Your task to perform on an android device: Go to Android settings Image 0: 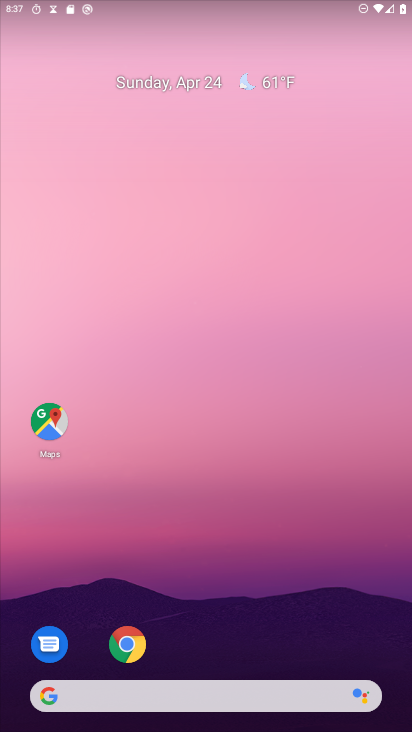
Step 0: drag from (249, 535) to (244, 92)
Your task to perform on an android device: Go to Android settings Image 1: 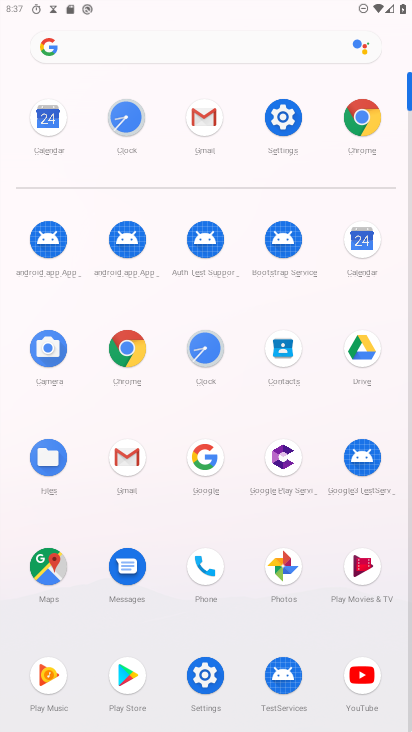
Step 1: click (196, 685)
Your task to perform on an android device: Go to Android settings Image 2: 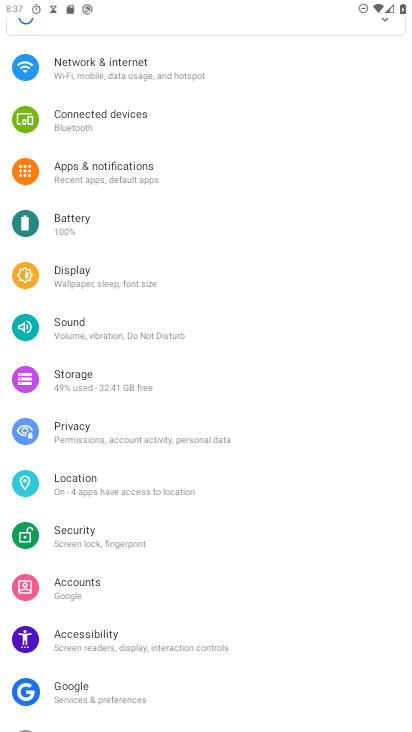
Step 2: drag from (129, 642) to (119, 174)
Your task to perform on an android device: Go to Android settings Image 3: 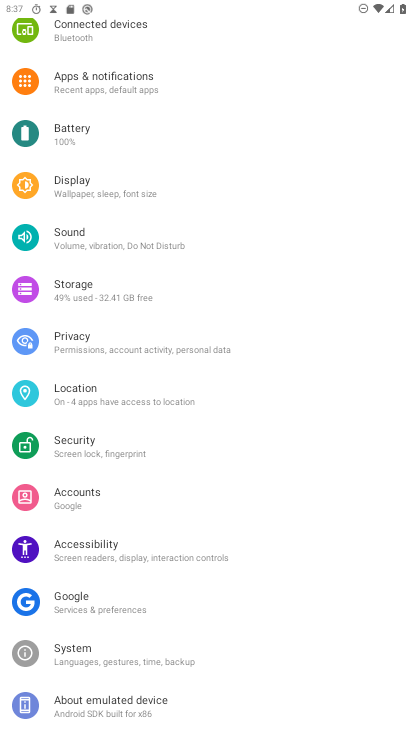
Step 3: click (124, 703)
Your task to perform on an android device: Go to Android settings Image 4: 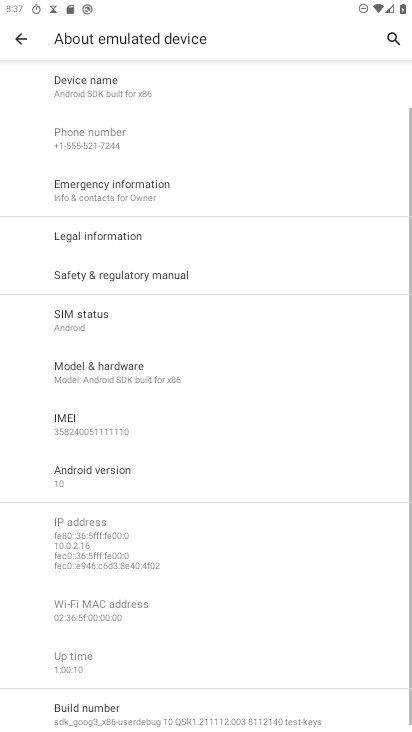
Step 4: task complete